Your task to perform on an android device: create a new album in the google photos Image 0: 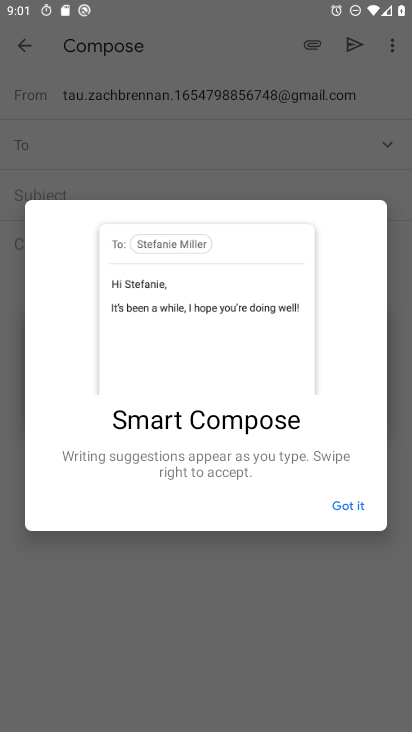
Step 0: press home button
Your task to perform on an android device: create a new album in the google photos Image 1: 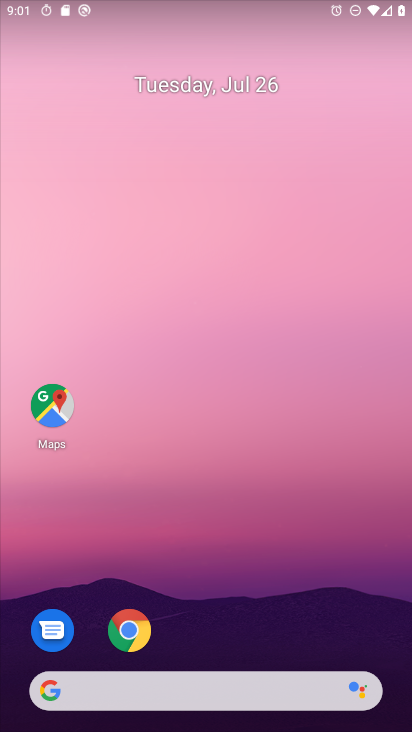
Step 1: drag from (305, 577) to (283, 101)
Your task to perform on an android device: create a new album in the google photos Image 2: 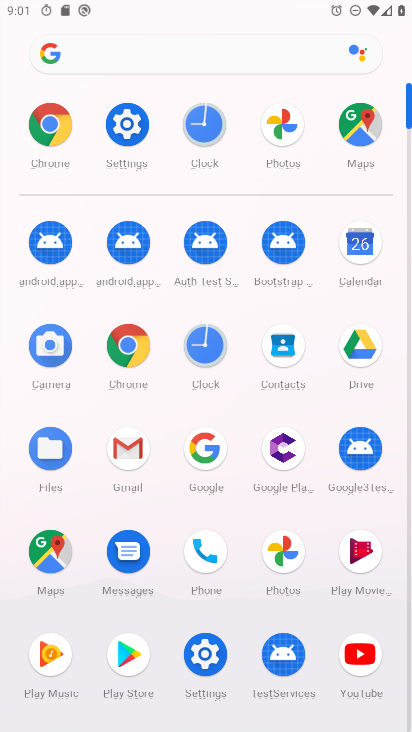
Step 2: click (291, 557)
Your task to perform on an android device: create a new album in the google photos Image 3: 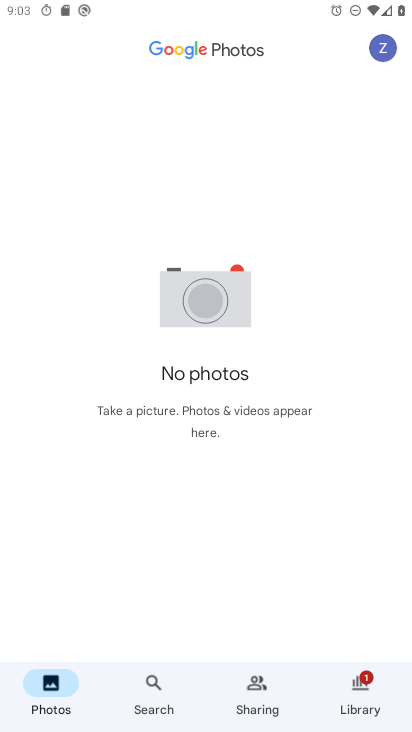
Step 3: click (159, 694)
Your task to perform on an android device: create a new album in the google photos Image 4: 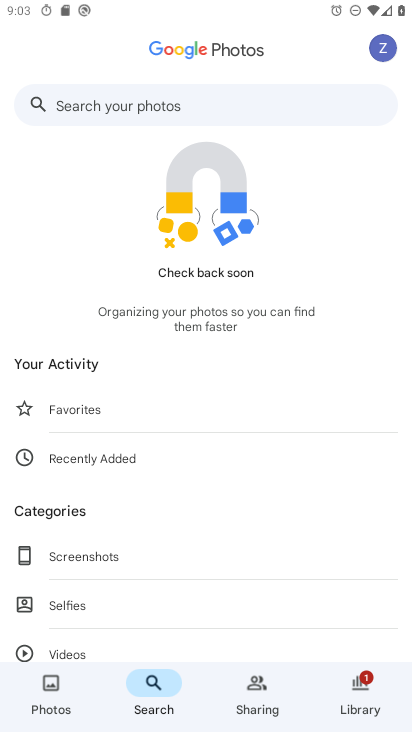
Step 4: click (350, 690)
Your task to perform on an android device: create a new album in the google photos Image 5: 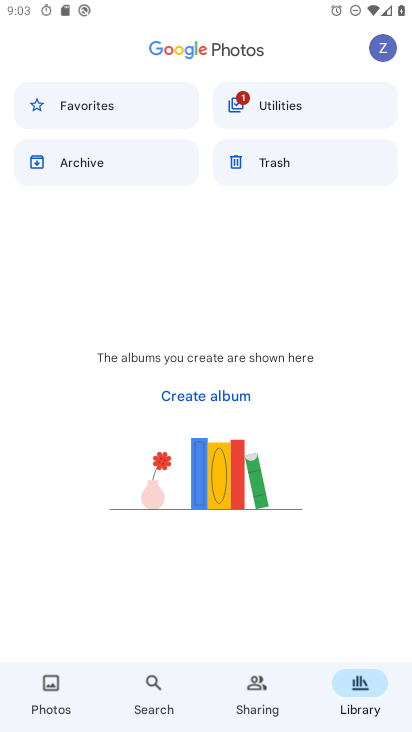
Step 5: click (224, 407)
Your task to perform on an android device: create a new album in the google photos Image 6: 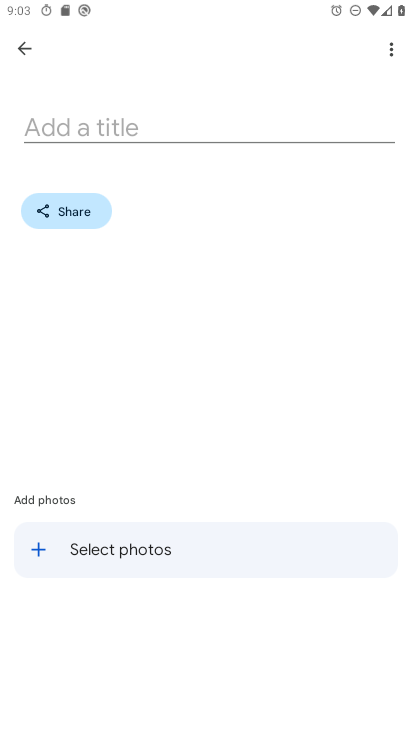
Step 6: click (193, 127)
Your task to perform on an android device: create a new album in the google photos Image 7: 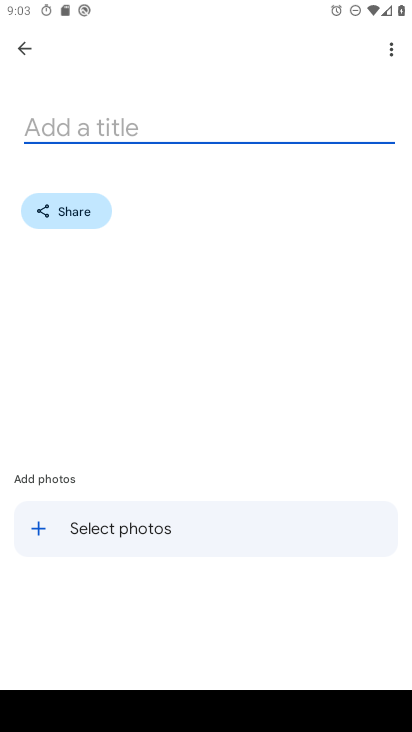
Step 7: type "jnnbj"
Your task to perform on an android device: create a new album in the google photos Image 8: 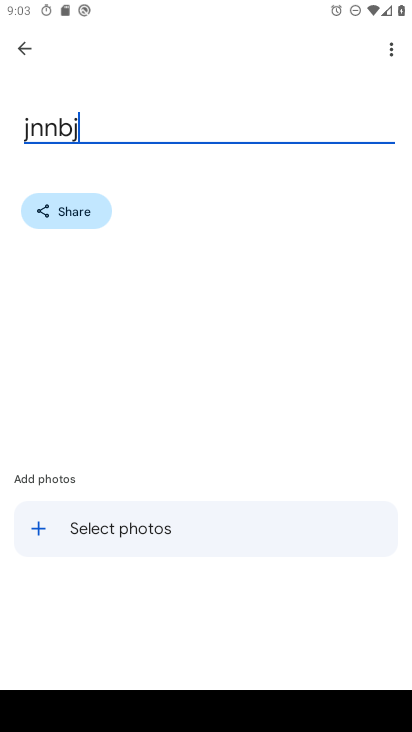
Step 8: type ""
Your task to perform on an android device: create a new album in the google photos Image 9: 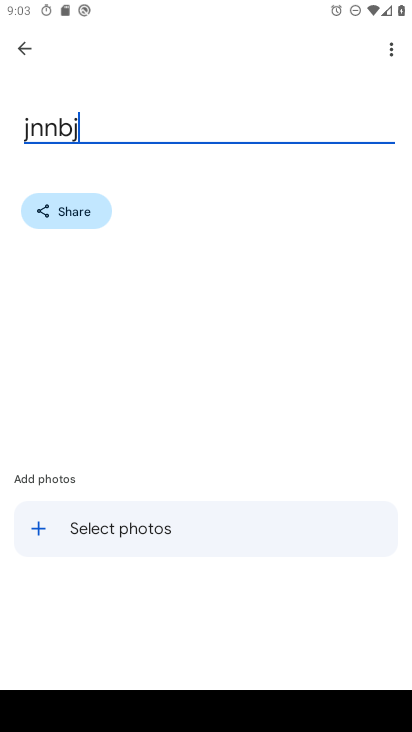
Step 9: task complete